Your task to perform on an android device: delete the emails in spam in the gmail app Image 0: 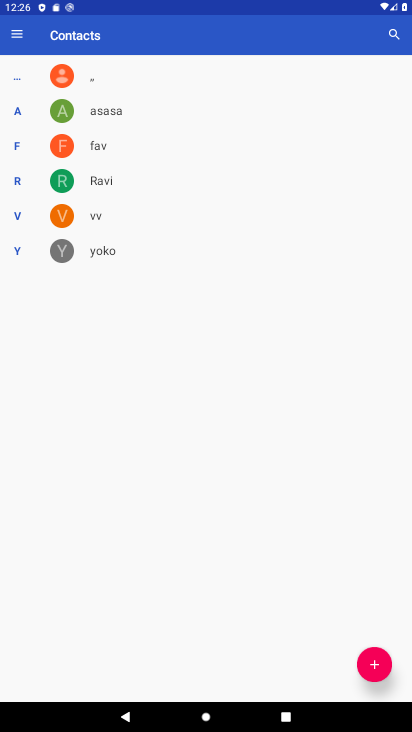
Step 0: press home button
Your task to perform on an android device: delete the emails in spam in the gmail app Image 1: 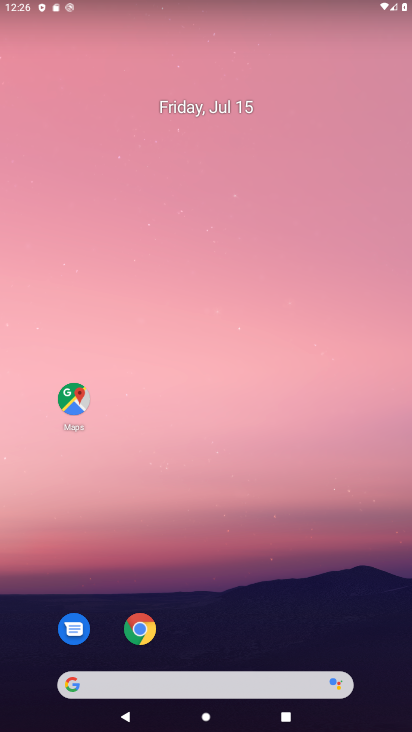
Step 1: drag from (248, 593) to (251, 118)
Your task to perform on an android device: delete the emails in spam in the gmail app Image 2: 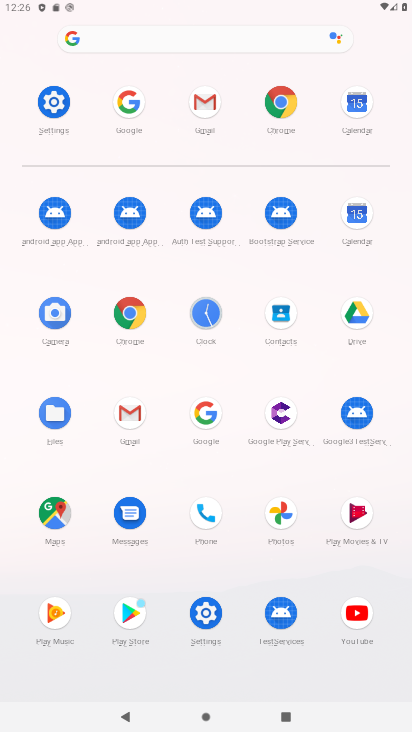
Step 2: click (206, 102)
Your task to perform on an android device: delete the emails in spam in the gmail app Image 3: 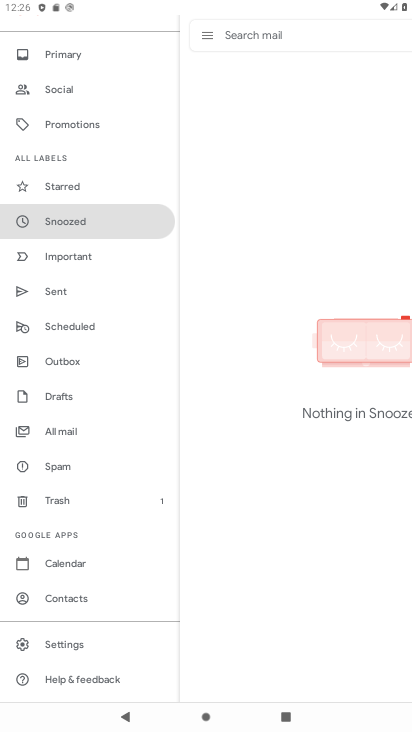
Step 3: click (57, 471)
Your task to perform on an android device: delete the emails in spam in the gmail app Image 4: 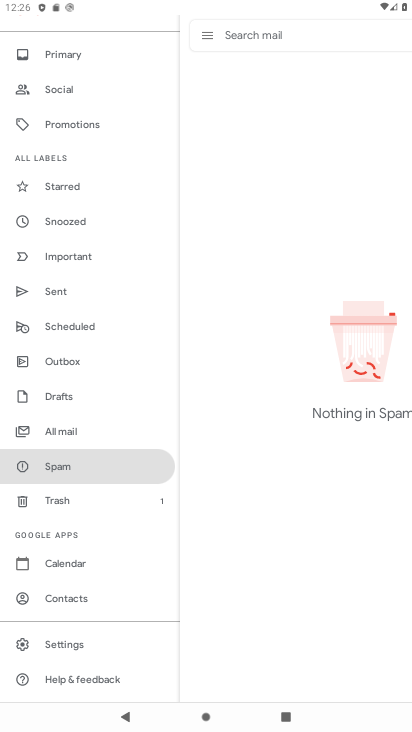
Step 4: task complete